Your task to perform on an android device: toggle notification dots Image 0: 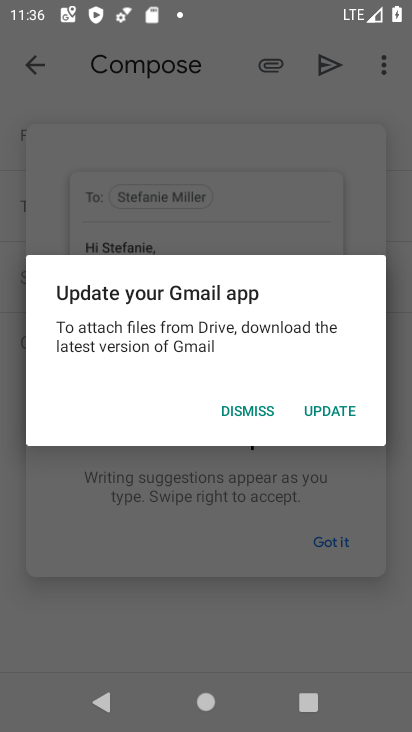
Step 0: press home button
Your task to perform on an android device: toggle notification dots Image 1: 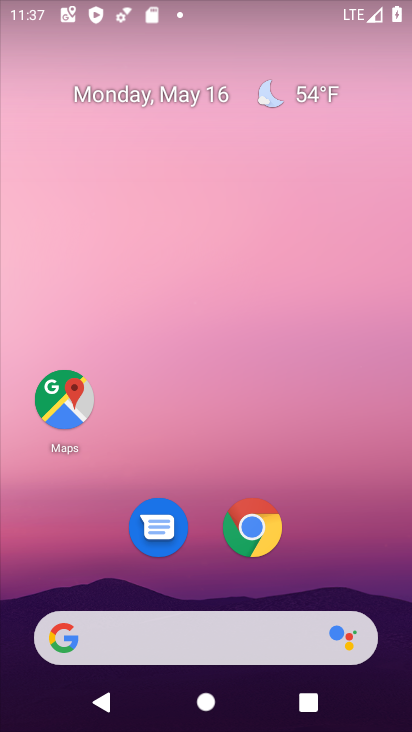
Step 1: drag from (265, 655) to (316, 170)
Your task to perform on an android device: toggle notification dots Image 2: 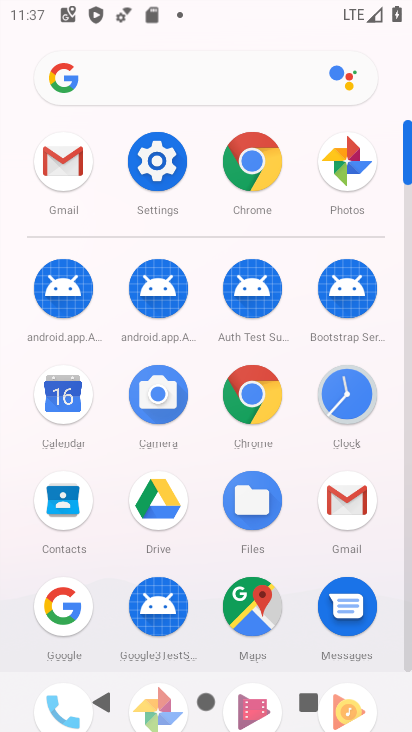
Step 2: click (153, 182)
Your task to perform on an android device: toggle notification dots Image 3: 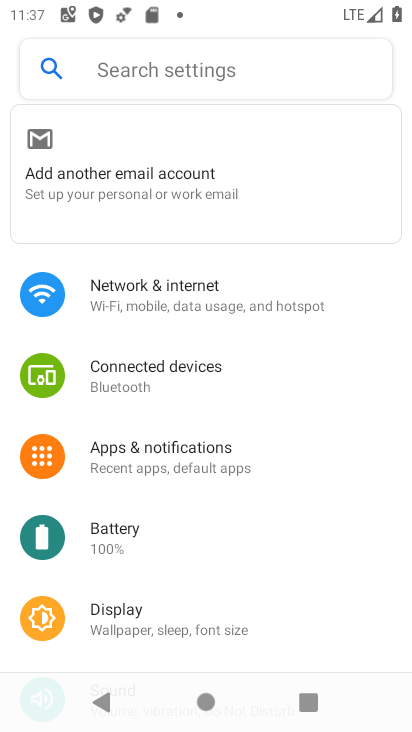
Step 3: click (118, 79)
Your task to perform on an android device: toggle notification dots Image 4: 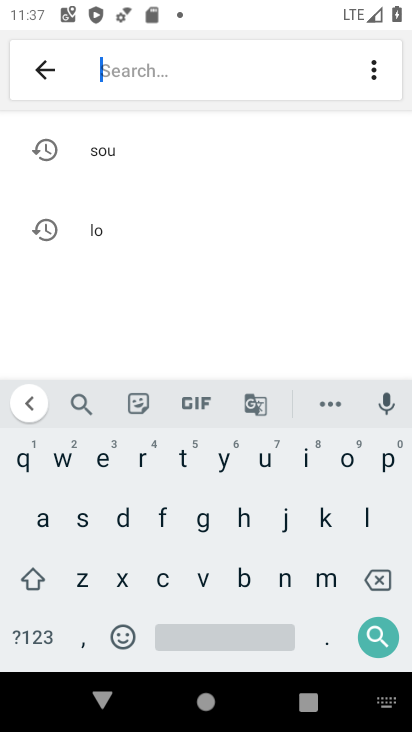
Step 4: click (119, 511)
Your task to perform on an android device: toggle notification dots Image 5: 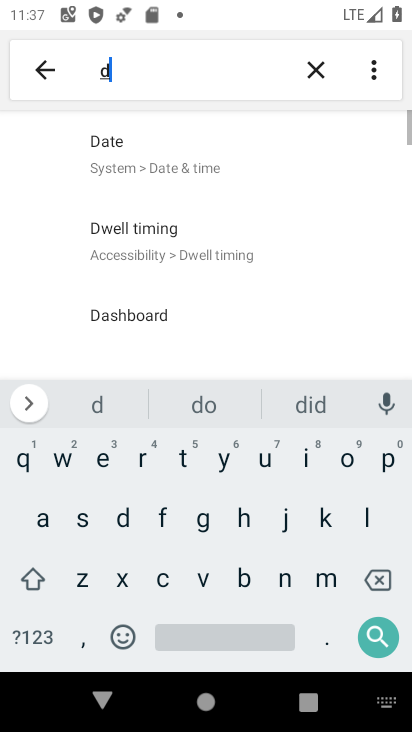
Step 5: click (345, 457)
Your task to perform on an android device: toggle notification dots Image 6: 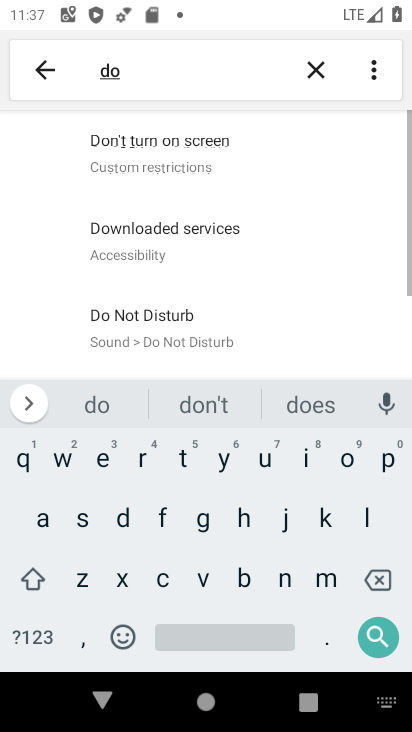
Step 6: click (181, 468)
Your task to perform on an android device: toggle notification dots Image 7: 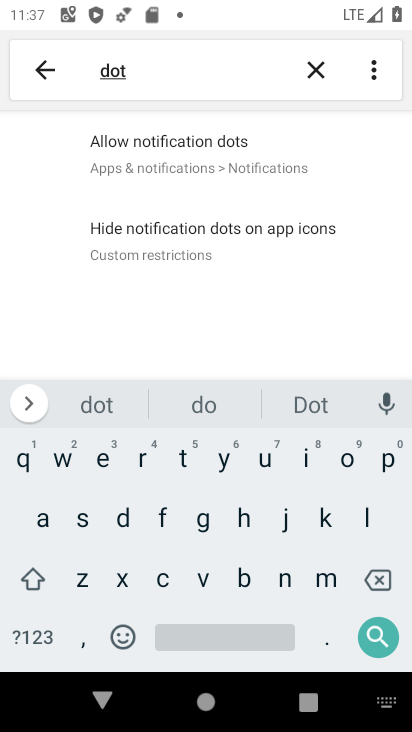
Step 7: click (172, 176)
Your task to perform on an android device: toggle notification dots Image 8: 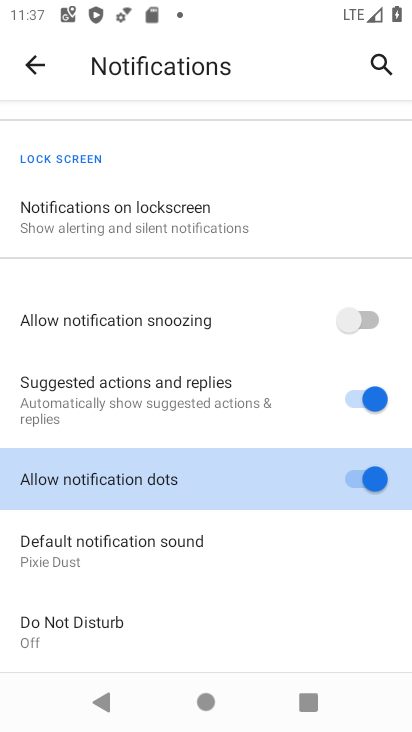
Step 8: click (123, 458)
Your task to perform on an android device: toggle notification dots Image 9: 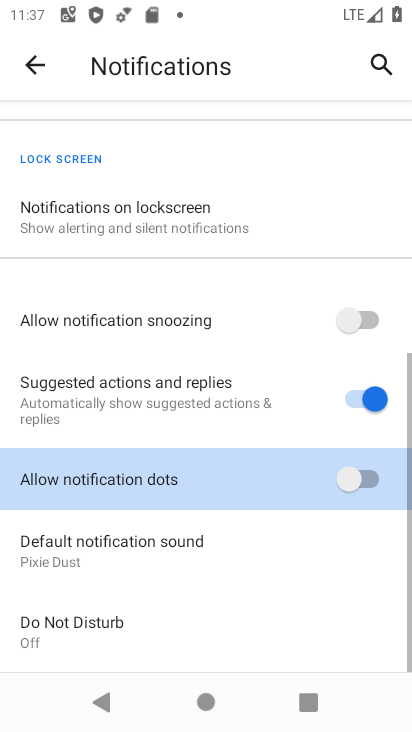
Step 9: click (122, 478)
Your task to perform on an android device: toggle notification dots Image 10: 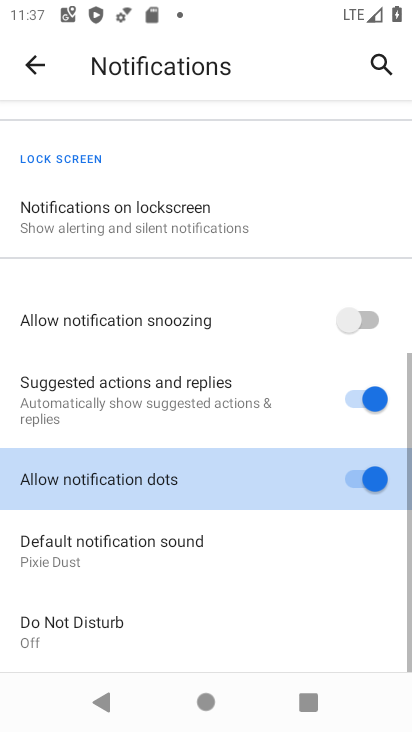
Step 10: task complete